Your task to perform on an android device: Go to Yahoo.com Image 0: 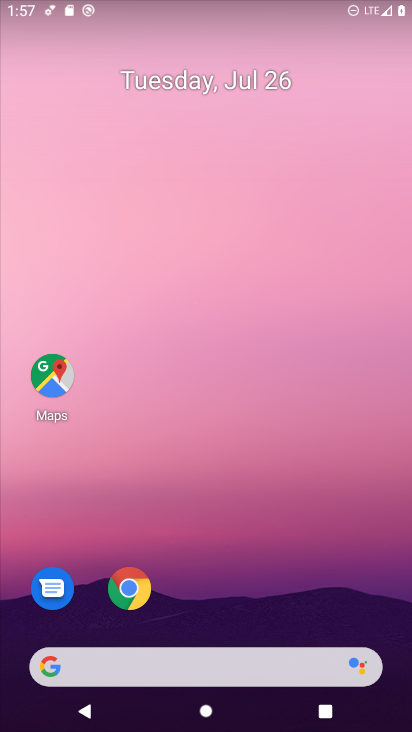
Step 0: drag from (227, 640) to (176, 209)
Your task to perform on an android device: Go to Yahoo.com Image 1: 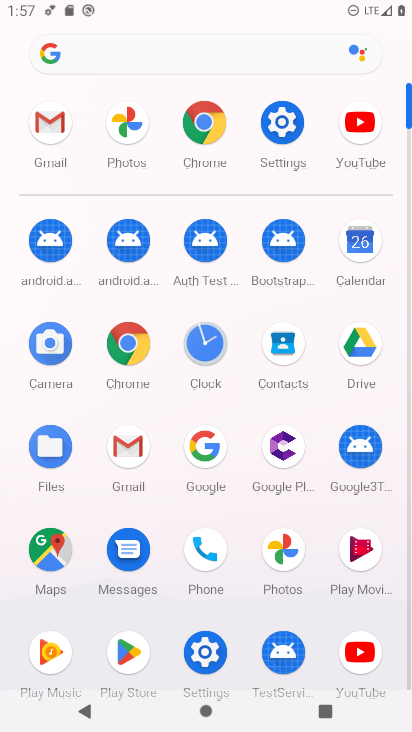
Step 1: click (199, 444)
Your task to perform on an android device: Go to Yahoo.com Image 2: 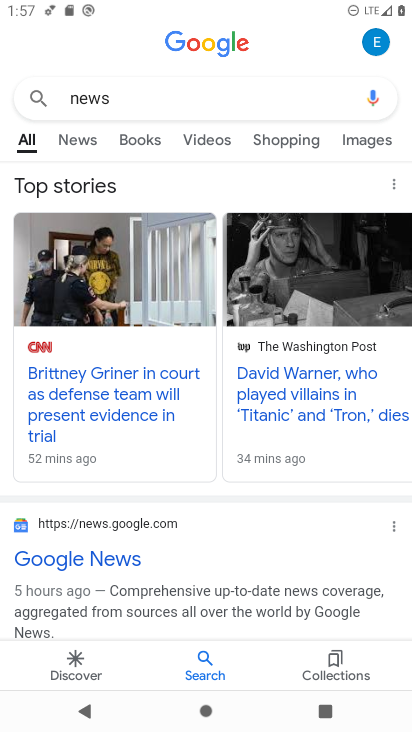
Step 2: click (280, 103)
Your task to perform on an android device: Go to Yahoo.com Image 3: 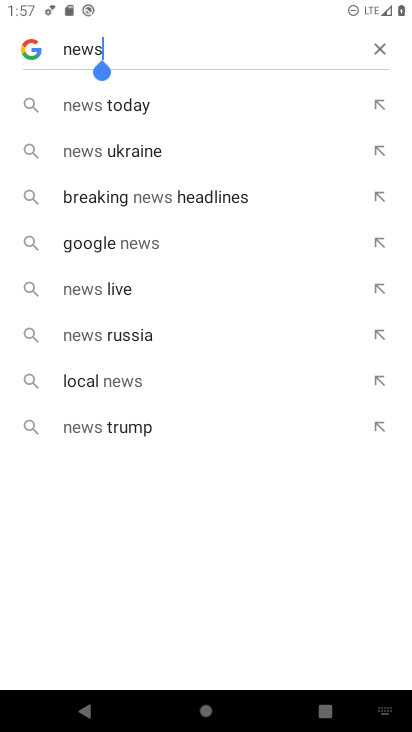
Step 3: click (372, 57)
Your task to perform on an android device: Go to Yahoo.com Image 4: 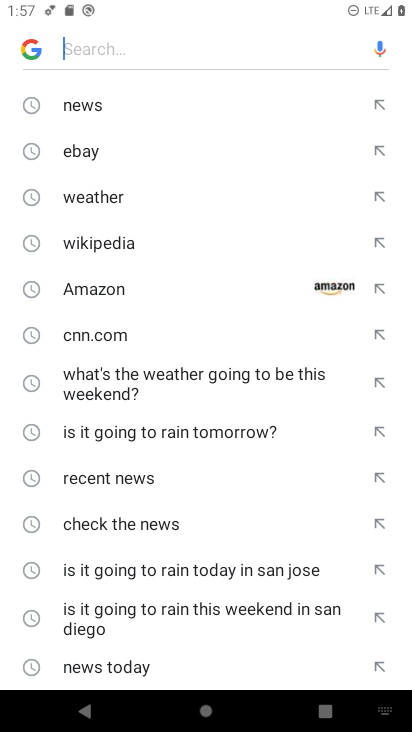
Step 4: type "Yahoo.com"
Your task to perform on an android device: Go to Yahoo.com Image 5: 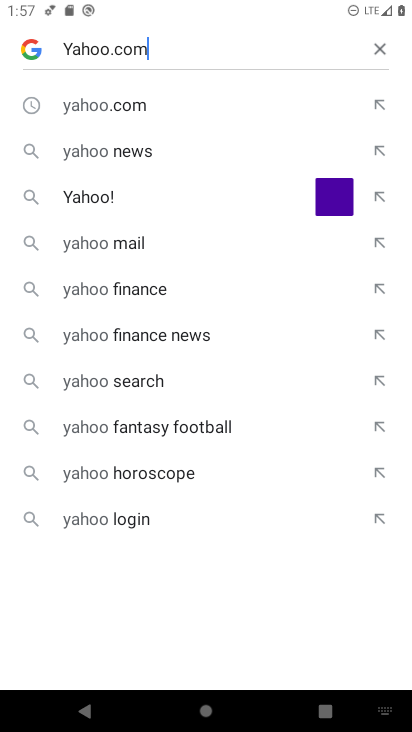
Step 5: type ""
Your task to perform on an android device: Go to Yahoo.com Image 6: 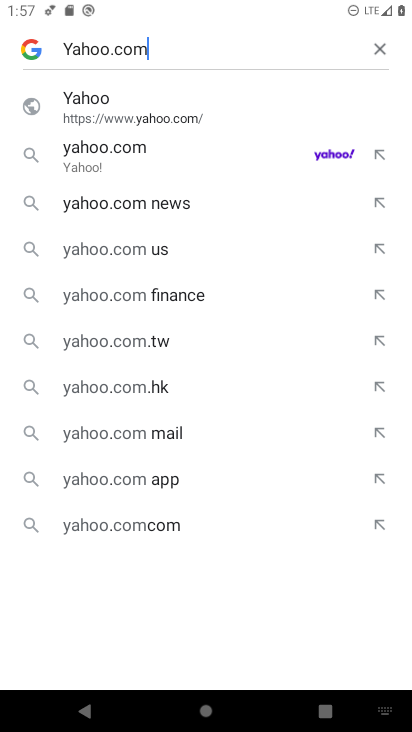
Step 6: click (72, 83)
Your task to perform on an android device: Go to Yahoo.com Image 7: 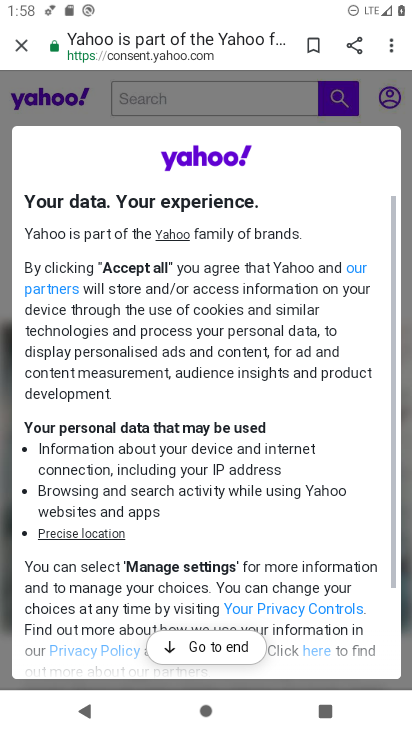
Step 7: click (250, 649)
Your task to perform on an android device: Go to Yahoo.com Image 8: 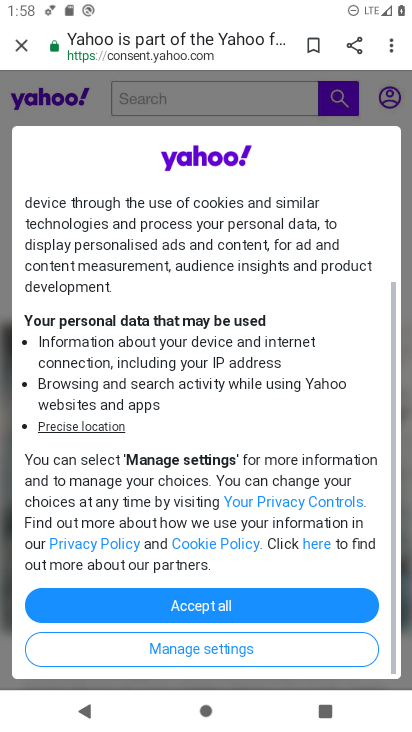
Step 8: click (218, 606)
Your task to perform on an android device: Go to Yahoo.com Image 9: 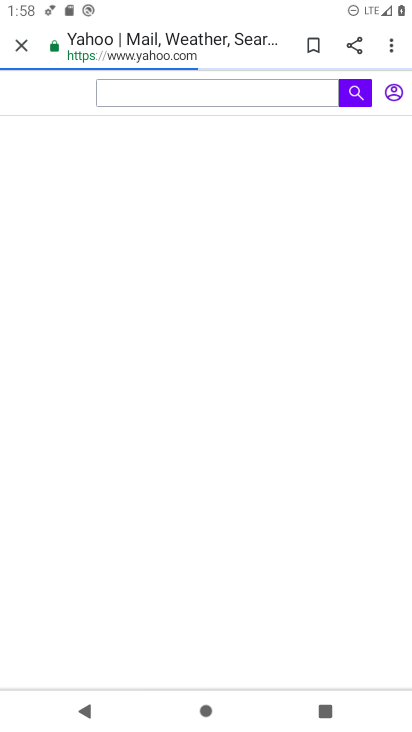
Step 9: task complete